Your task to perform on an android device: open app "Expedia: Hotels, Flights & Car" (install if not already installed) Image 0: 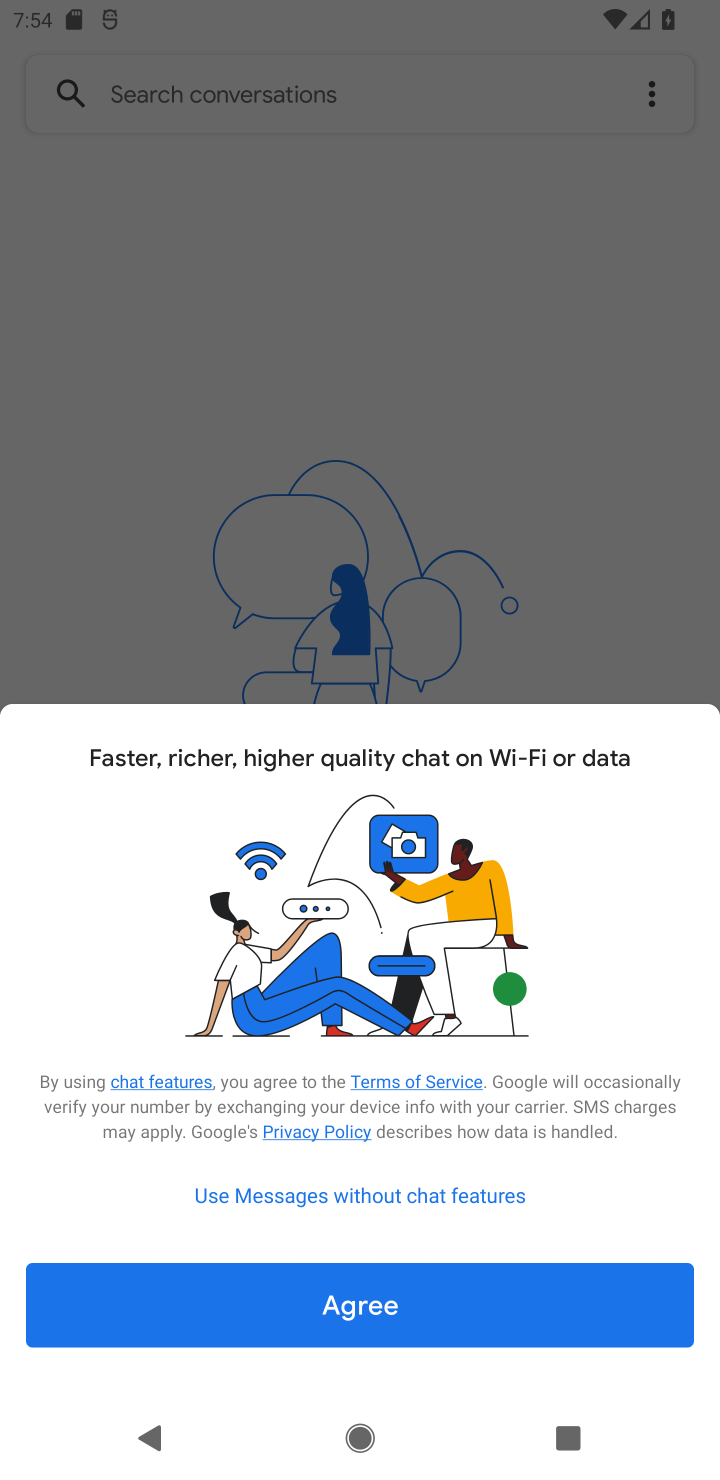
Step 0: press home button
Your task to perform on an android device: open app "Expedia: Hotels, Flights & Car" (install if not already installed) Image 1: 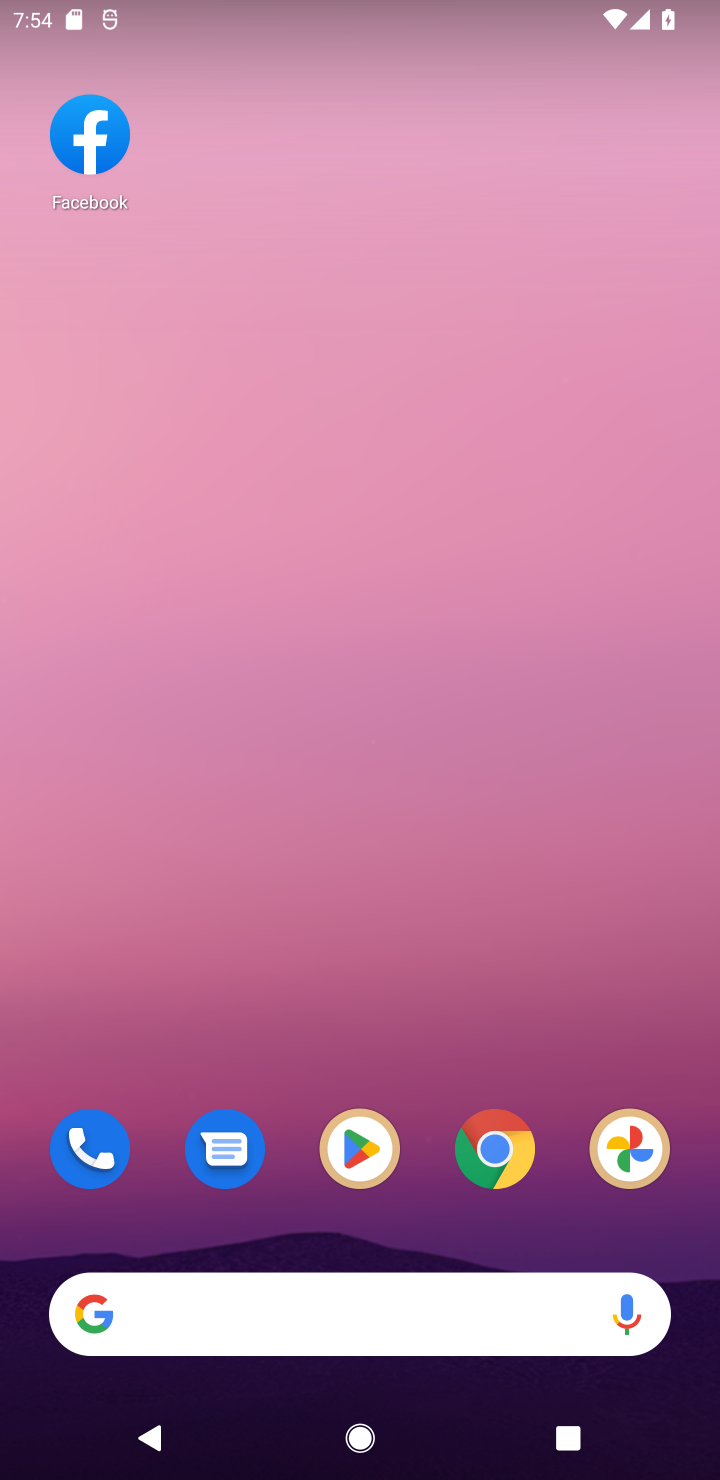
Step 1: drag from (686, 1247) to (362, 25)
Your task to perform on an android device: open app "Expedia: Hotels, Flights & Car" (install if not already installed) Image 2: 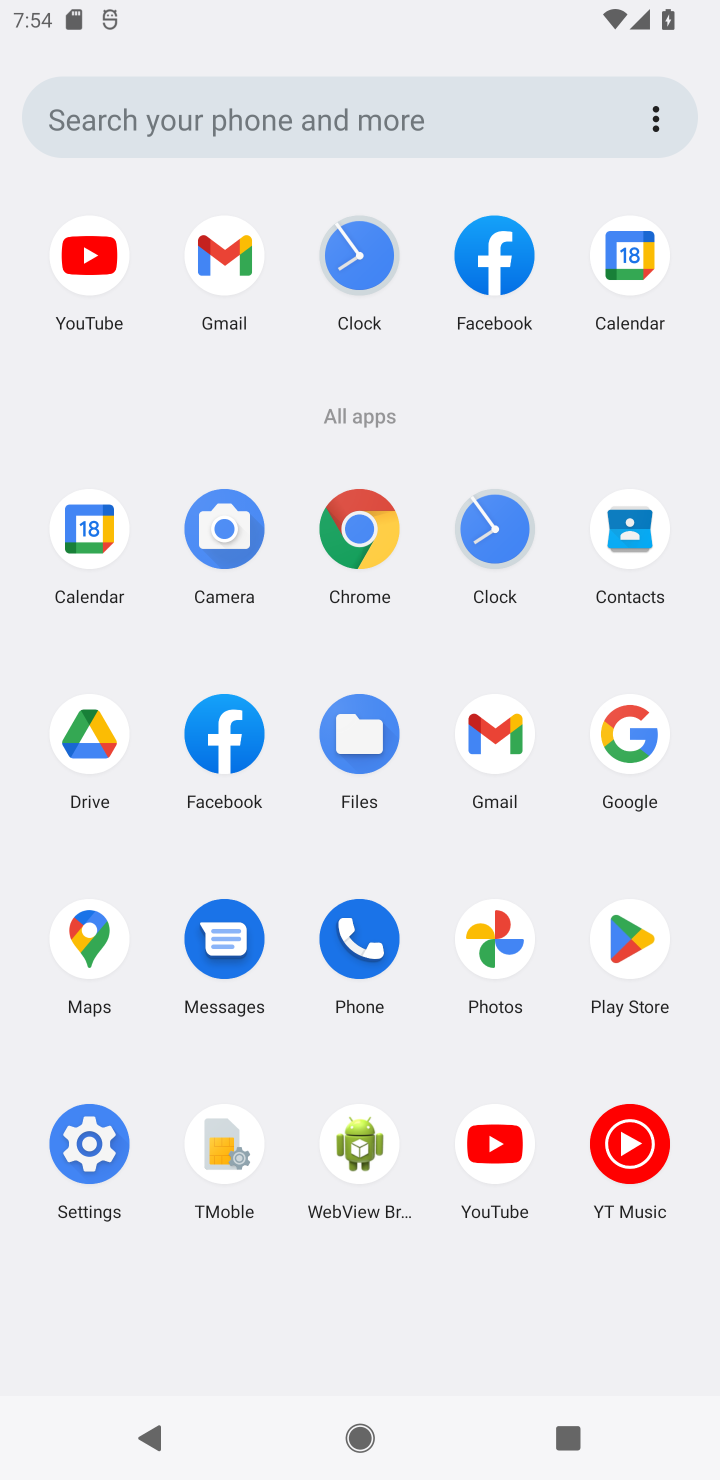
Step 2: click (609, 958)
Your task to perform on an android device: open app "Expedia: Hotels, Flights & Car" (install if not already installed) Image 3: 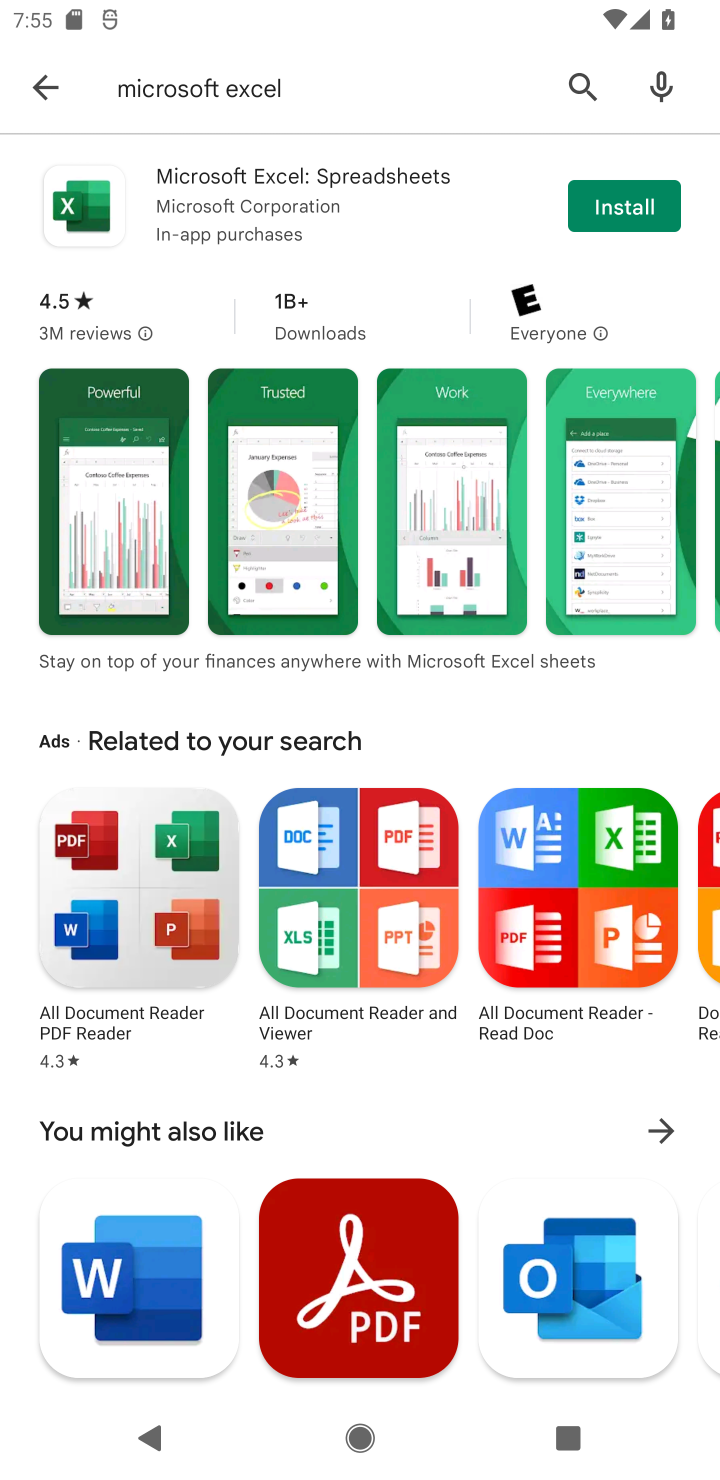
Step 3: press back button
Your task to perform on an android device: open app "Expedia: Hotels, Flights & Car" (install if not already installed) Image 4: 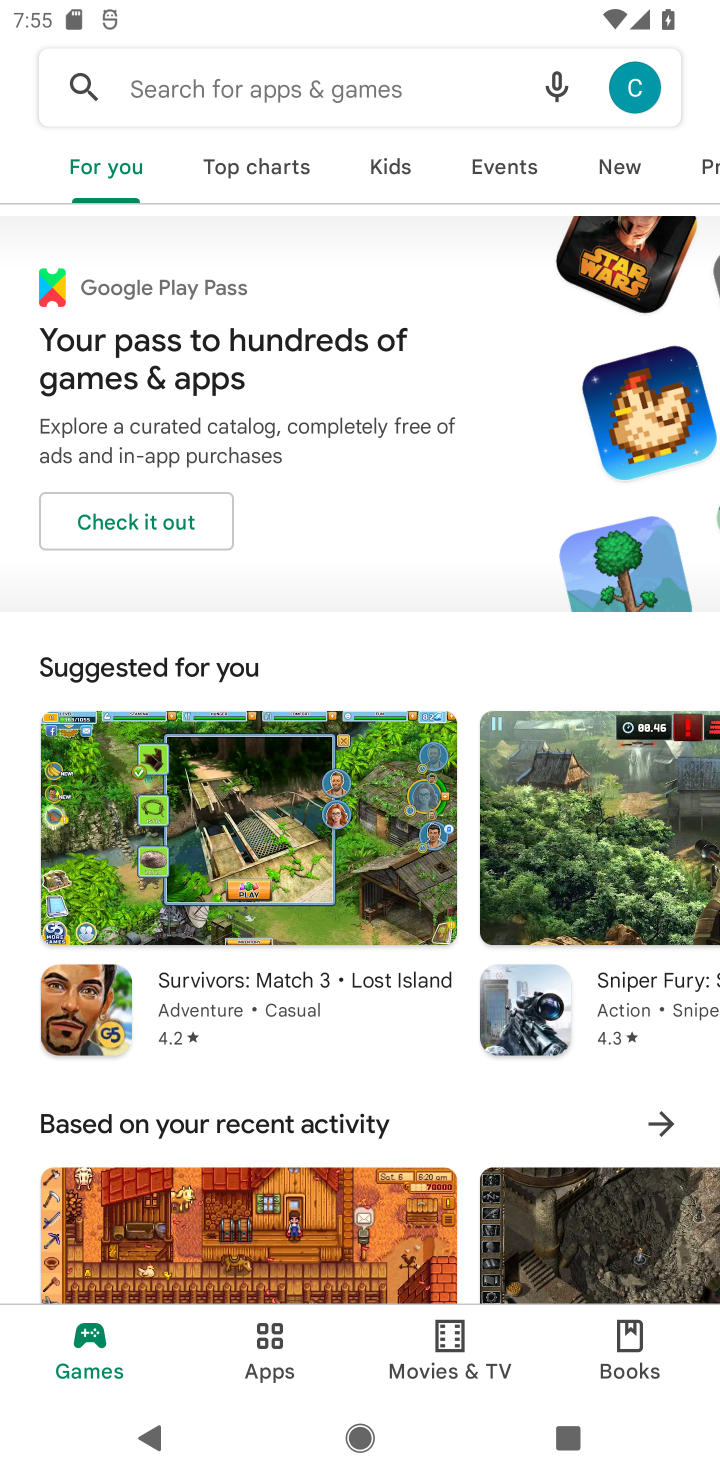
Step 4: click (174, 91)
Your task to perform on an android device: open app "Expedia: Hotels, Flights & Car" (install if not already installed) Image 5: 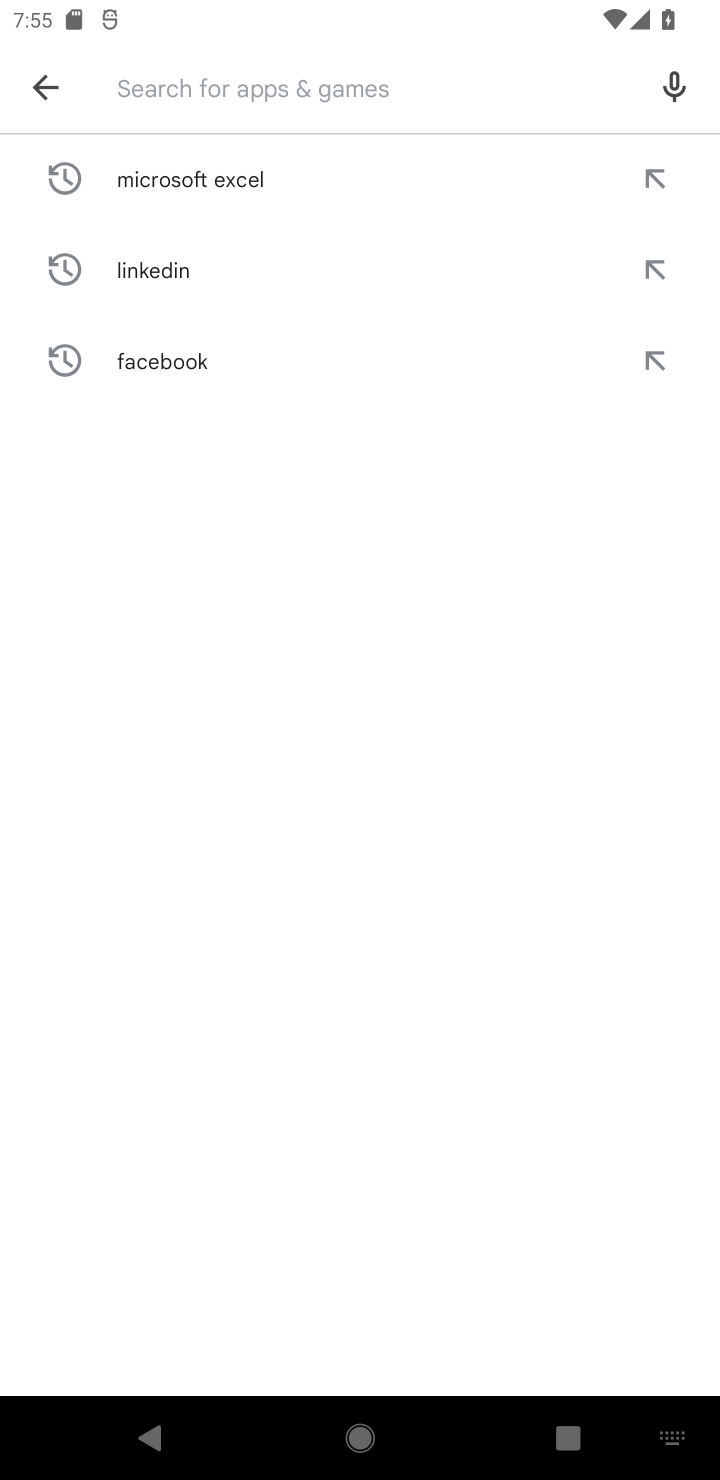
Step 5: type "Expedia: Hotels, Flights & Car"
Your task to perform on an android device: open app "Expedia: Hotels, Flights & Car" (install if not already installed) Image 6: 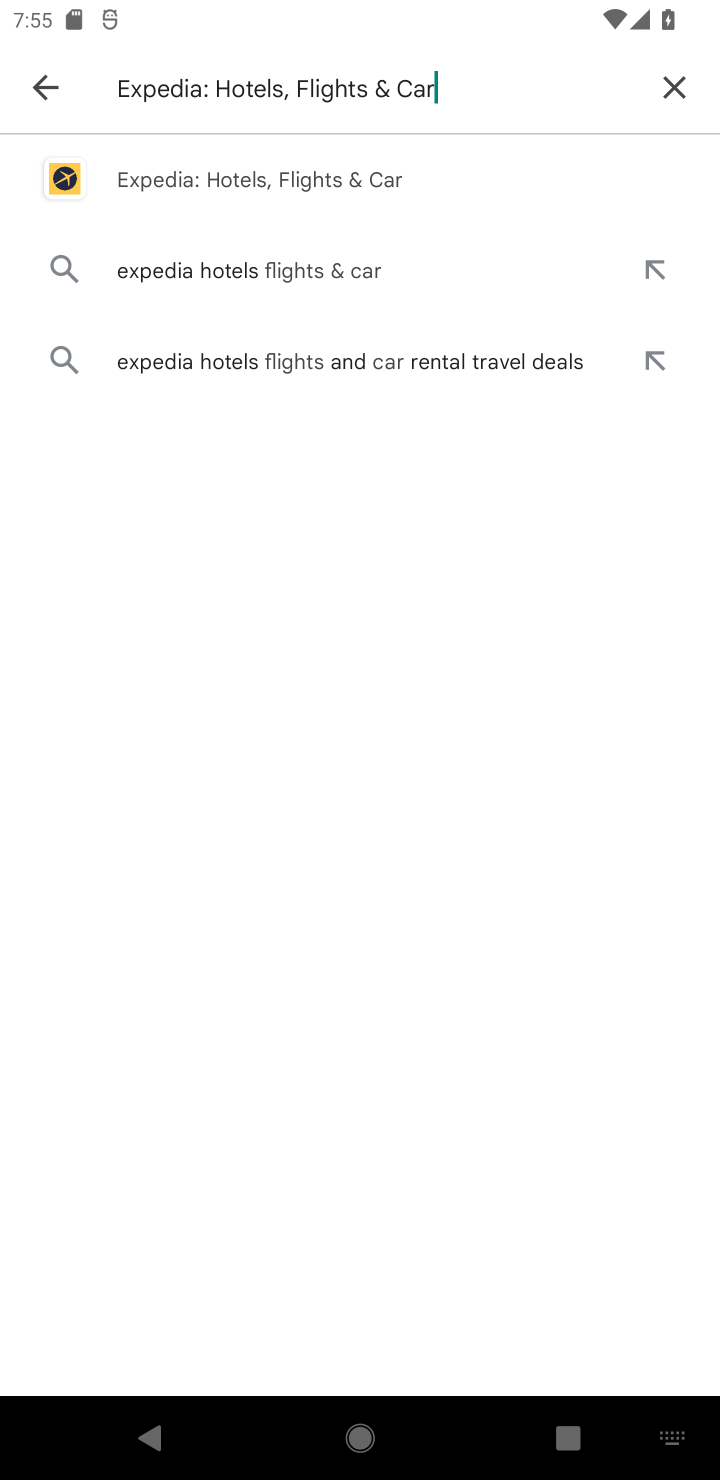
Step 6: click (307, 202)
Your task to perform on an android device: open app "Expedia: Hotels, Flights & Car" (install if not already installed) Image 7: 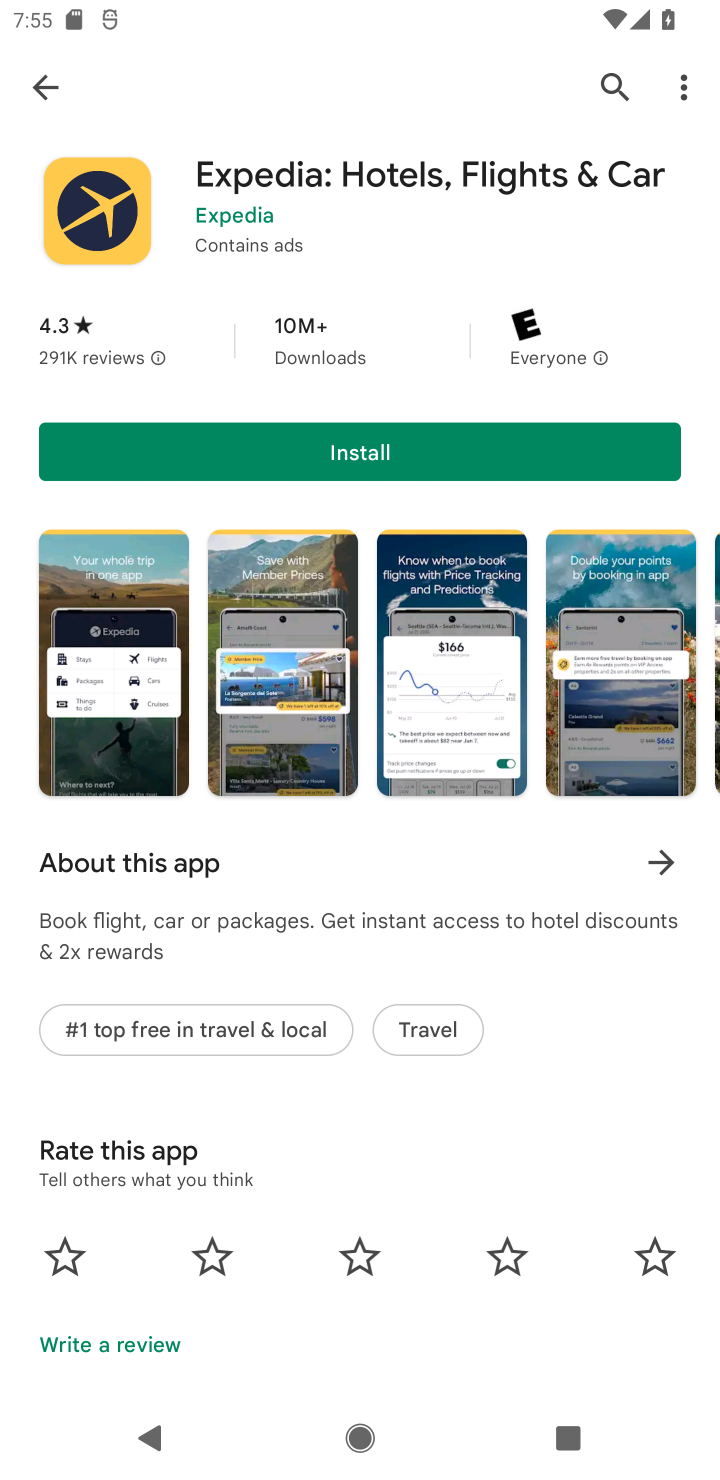
Step 7: task complete